Your task to perform on an android device: open wifi settings Image 0: 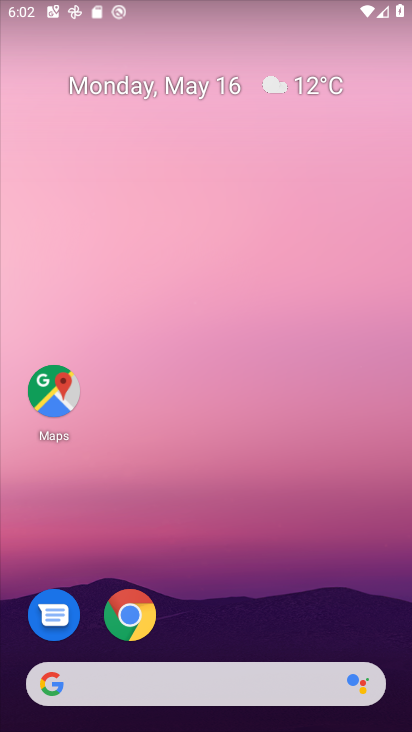
Step 0: drag from (207, 634) to (276, 135)
Your task to perform on an android device: open wifi settings Image 1: 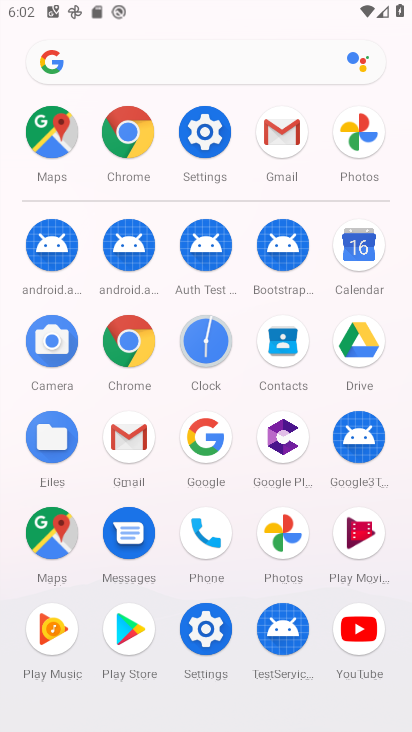
Step 1: click (201, 134)
Your task to perform on an android device: open wifi settings Image 2: 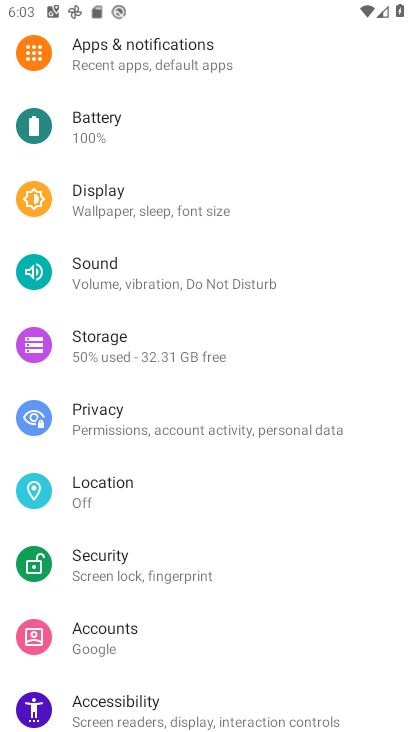
Step 2: drag from (155, 669) to (193, 345)
Your task to perform on an android device: open wifi settings Image 3: 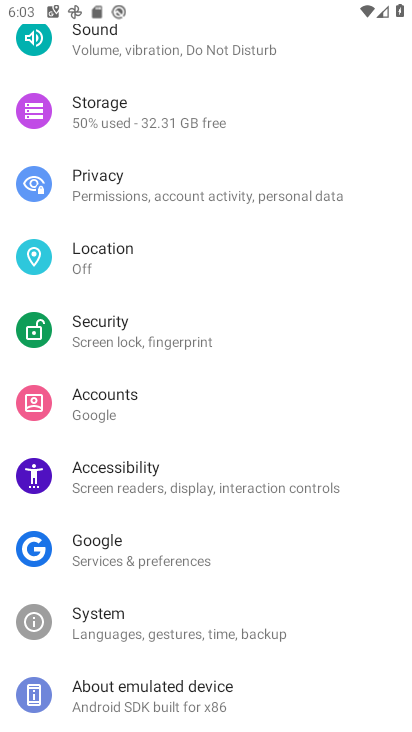
Step 3: drag from (162, 278) to (156, 484)
Your task to perform on an android device: open wifi settings Image 4: 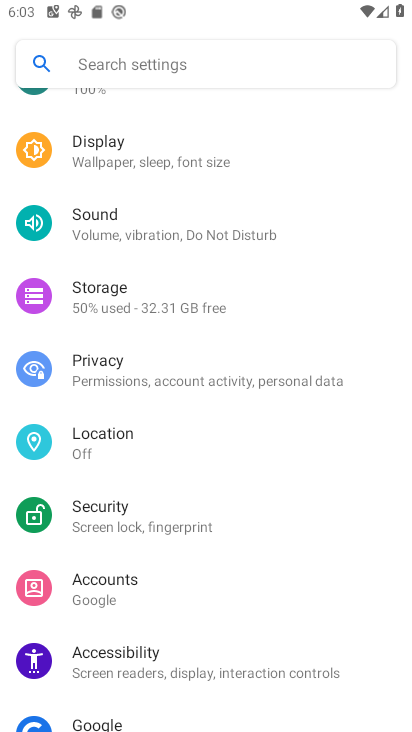
Step 4: drag from (111, 238) to (151, 556)
Your task to perform on an android device: open wifi settings Image 5: 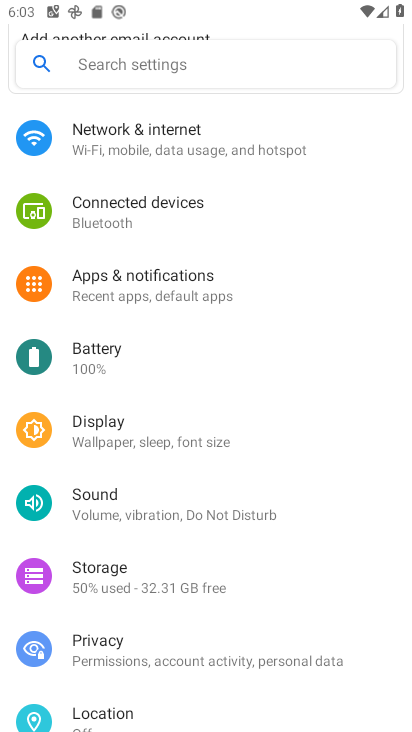
Step 5: drag from (207, 253) to (218, 565)
Your task to perform on an android device: open wifi settings Image 6: 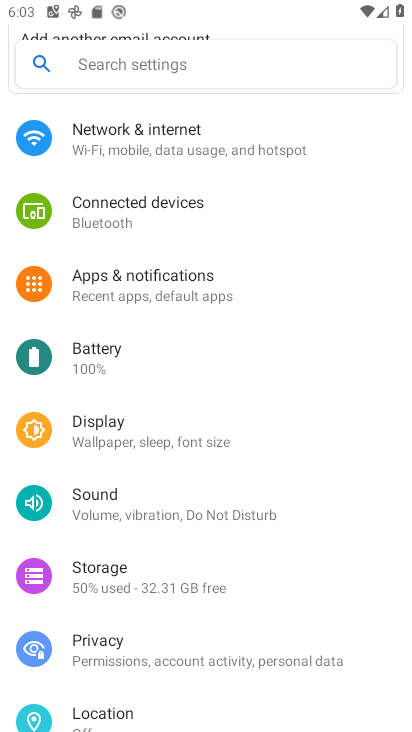
Step 6: click (146, 153)
Your task to perform on an android device: open wifi settings Image 7: 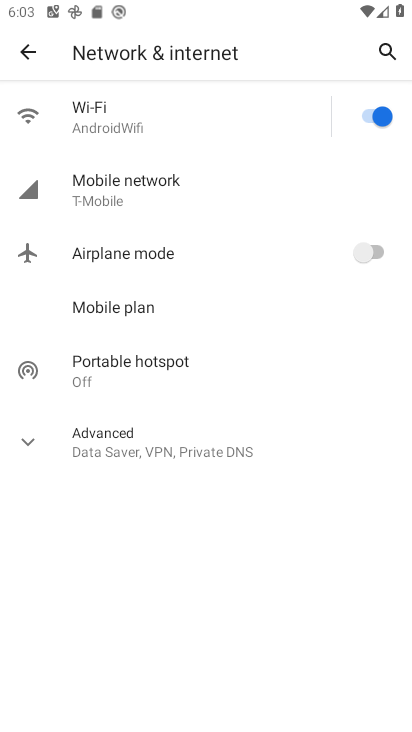
Step 7: click (188, 131)
Your task to perform on an android device: open wifi settings Image 8: 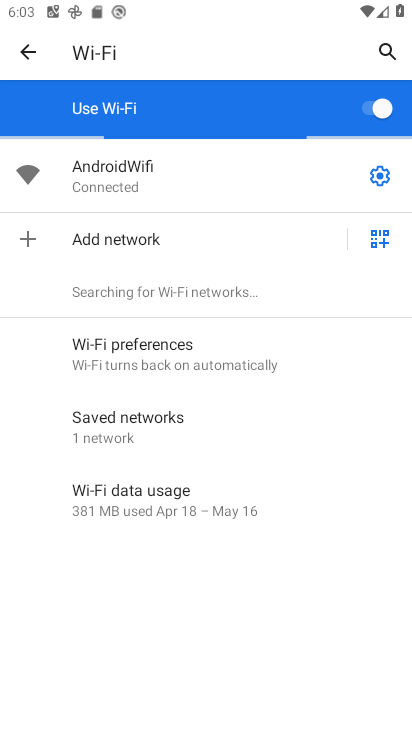
Step 8: task complete